Your task to perform on an android device: How do I get to the nearest T-Mobile Store? Image 0: 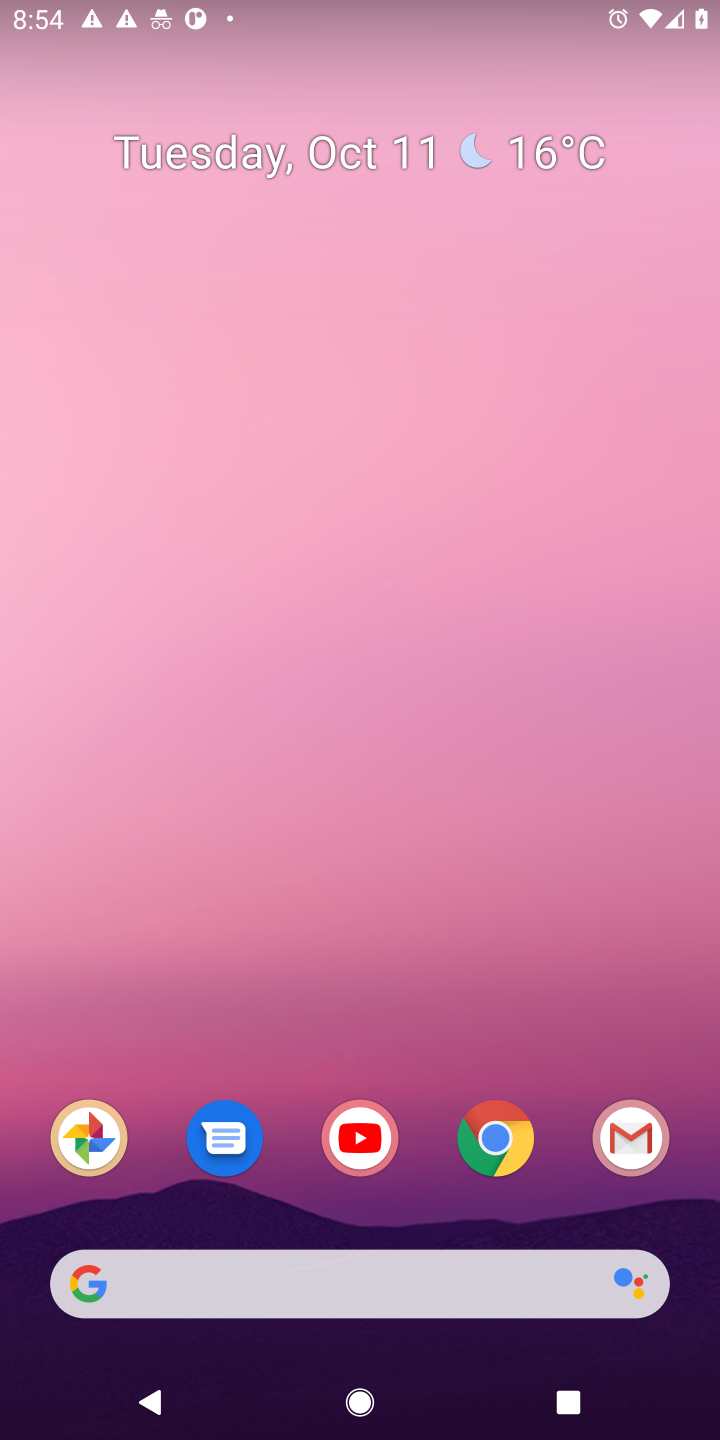
Step 0: click (316, 1274)
Your task to perform on an android device: How do I get to the nearest T-Mobile Store? Image 1: 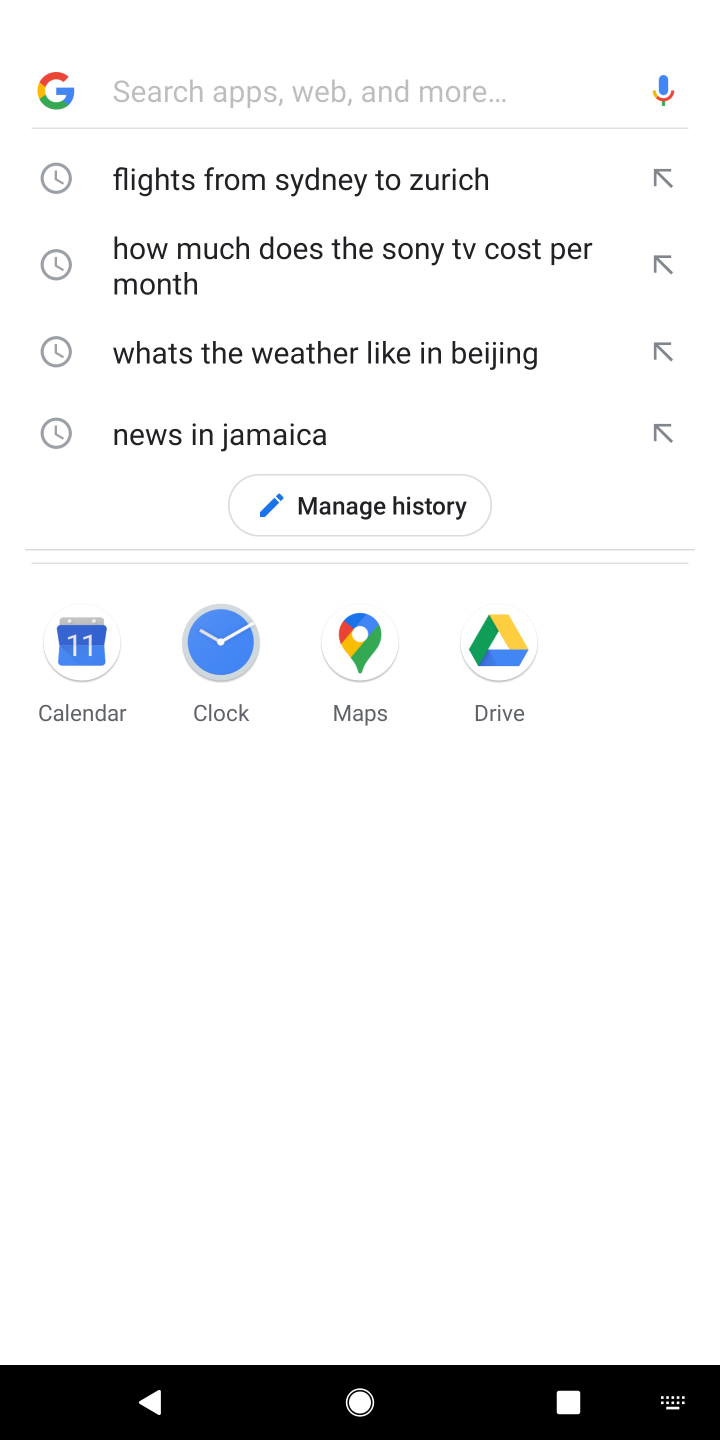
Step 1: type "how do i get to the nearest T mobile store?"
Your task to perform on an android device: How do I get to the nearest T-Mobile Store? Image 2: 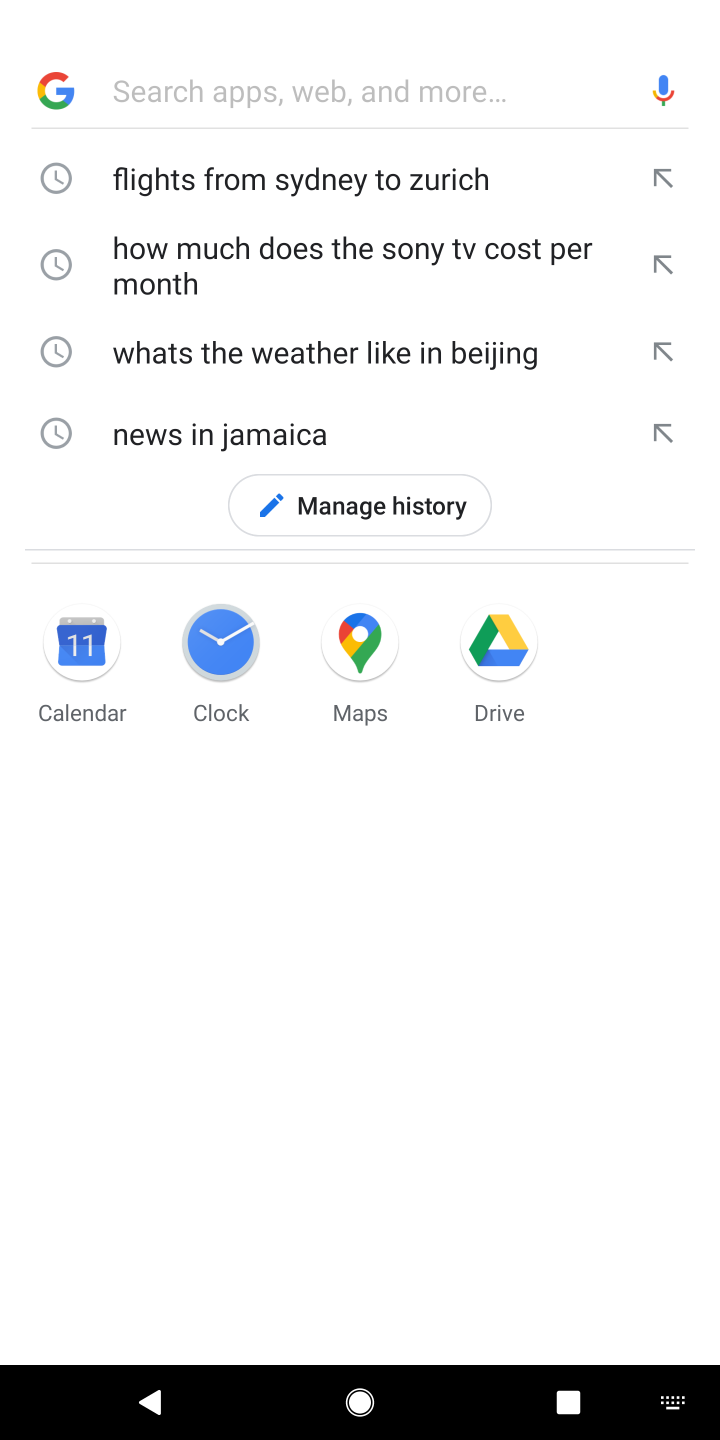
Step 2: click (271, 71)
Your task to perform on an android device: How do I get to the nearest T-Mobile Store? Image 3: 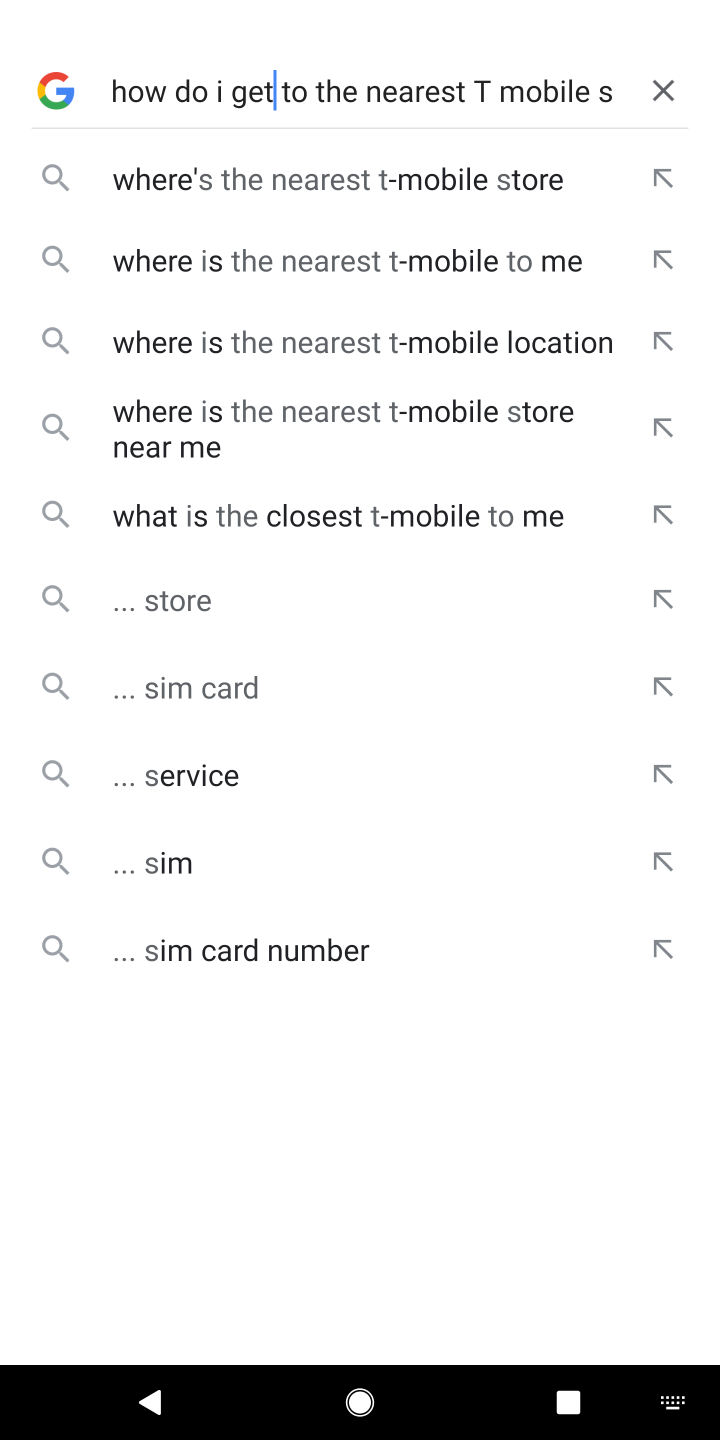
Step 3: click (432, 178)
Your task to perform on an android device: How do I get to the nearest T-Mobile Store? Image 4: 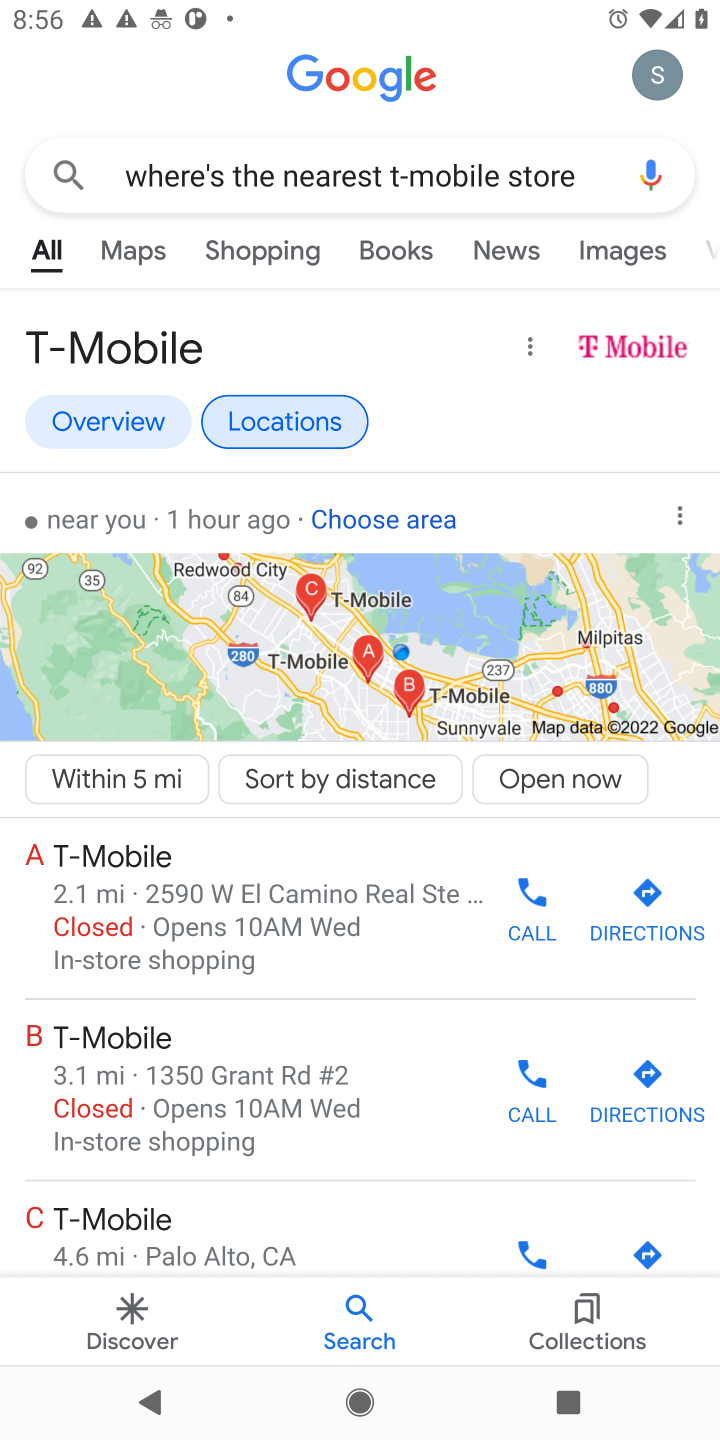
Step 4: task complete